Your task to perform on an android device: change the clock display to digital Image 0: 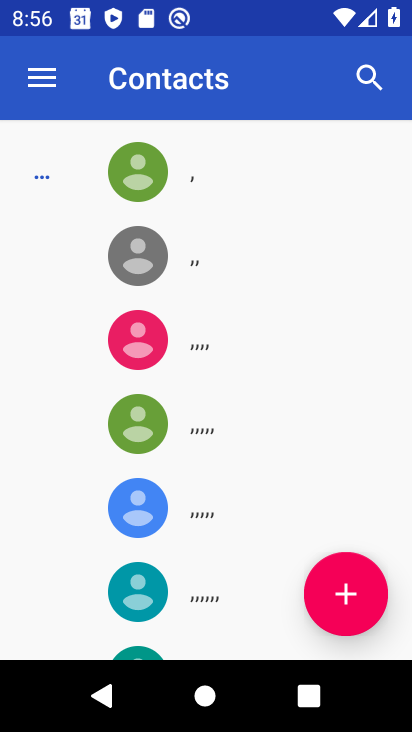
Step 0: press home button
Your task to perform on an android device: change the clock display to digital Image 1: 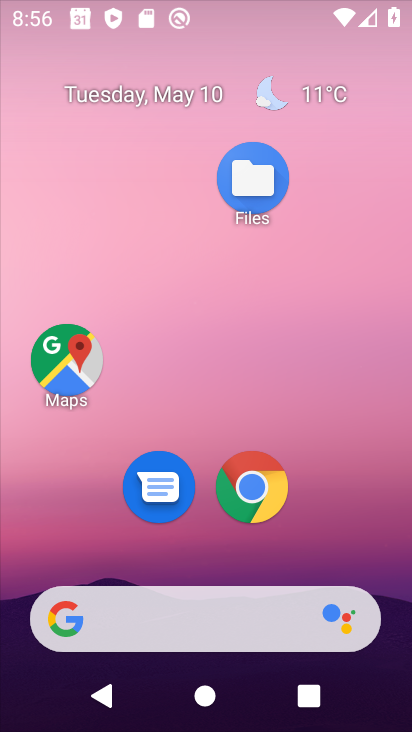
Step 1: drag from (214, 531) to (217, 117)
Your task to perform on an android device: change the clock display to digital Image 2: 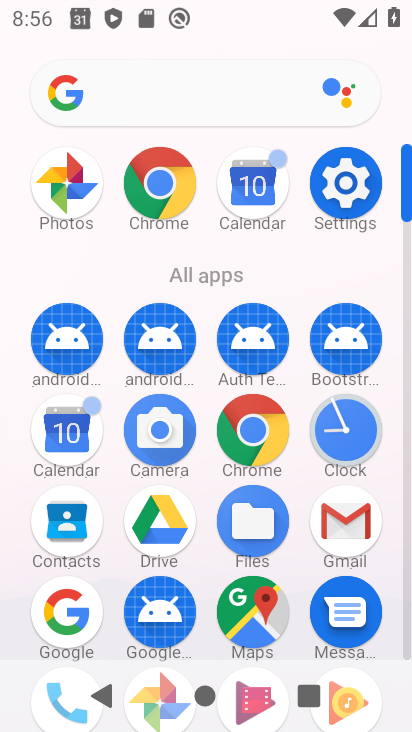
Step 2: click (345, 428)
Your task to perform on an android device: change the clock display to digital Image 3: 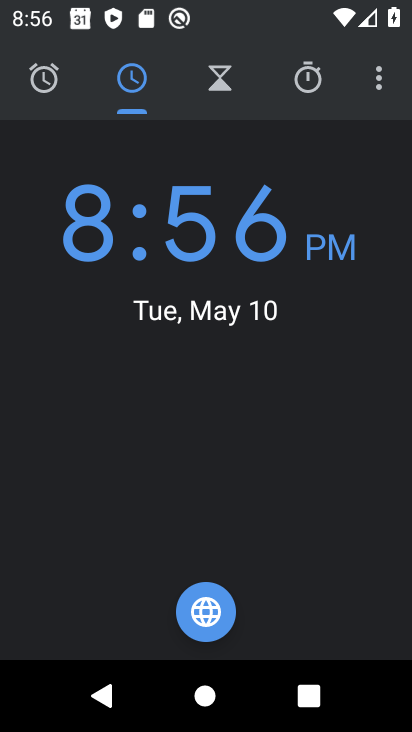
Step 3: click (367, 82)
Your task to perform on an android device: change the clock display to digital Image 4: 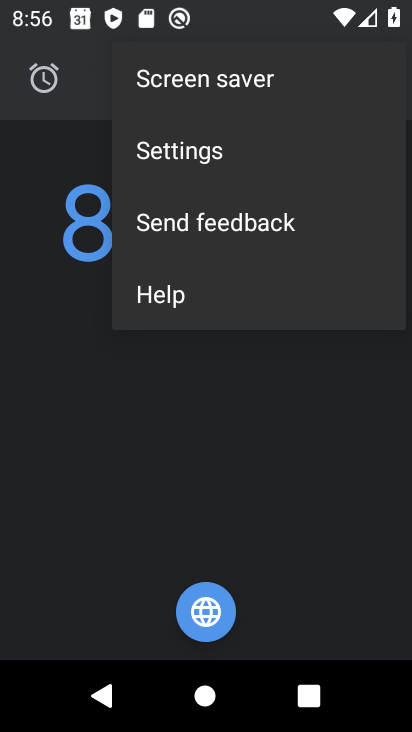
Step 4: click (160, 152)
Your task to perform on an android device: change the clock display to digital Image 5: 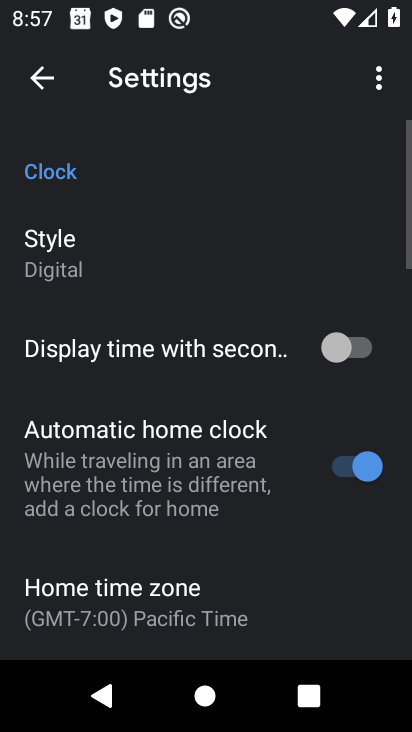
Step 5: click (122, 255)
Your task to perform on an android device: change the clock display to digital Image 6: 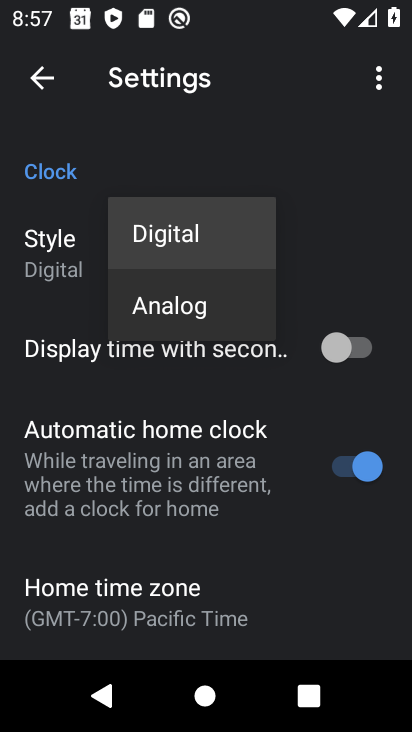
Step 6: click (184, 320)
Your task to perform on an android device: change the clock display to digital Image 7: 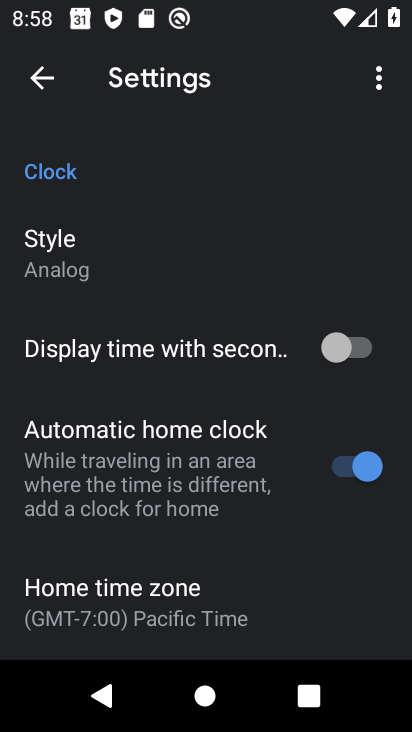
Step 7: task complete